Your task to perform on an android device: Go to display settings Image 0: 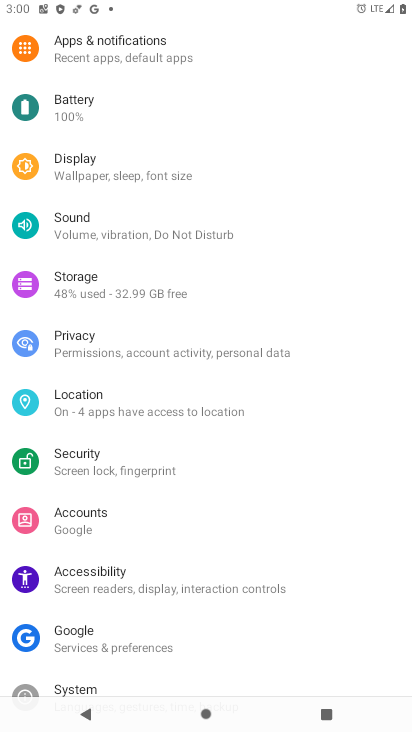
Step 0: click (68, 172)
Your task to perform on an android device: Go to display settings Image 1: 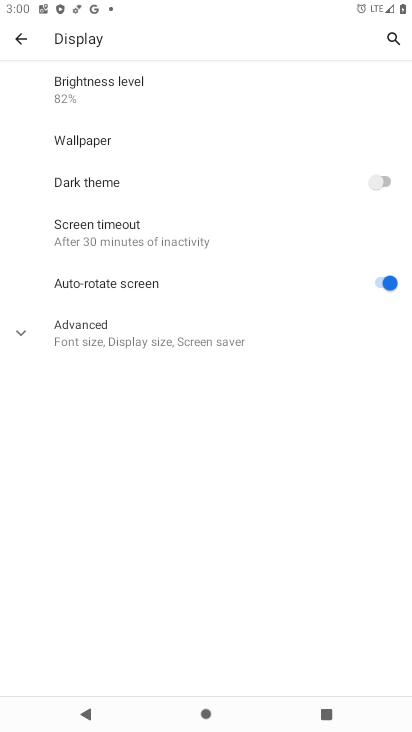
Step 1: task complete